Your task to perform on an android device: open wifi settings Image 0: 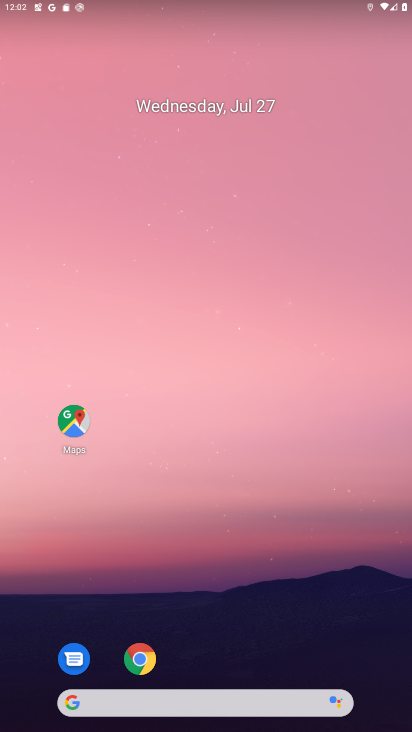
Step 0: drag from (238, 621) to (349, 24)
Your task to perform on an android device: open wifi settings Image 1: 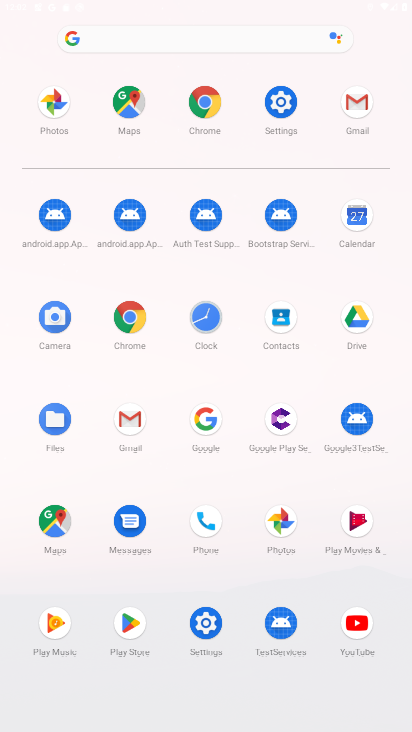
Step 1: click (285, 103)
Your task to perform on an android device: open wifi settings Image 2: 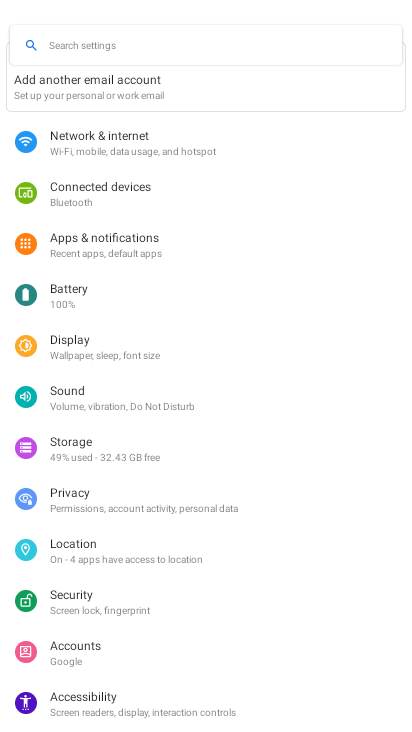
Step 2: click (121, 144)
Your task to perform on an android device: open wifi settings Image 3: 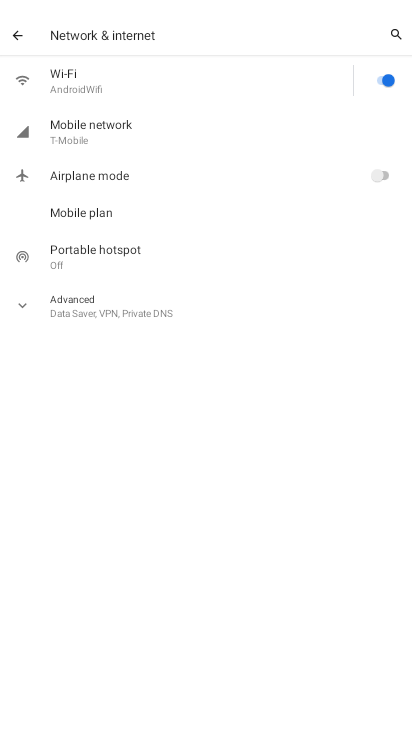
Step 3: click (99, 88)
Your task to perform on an android device: open wifi settings Image 4: 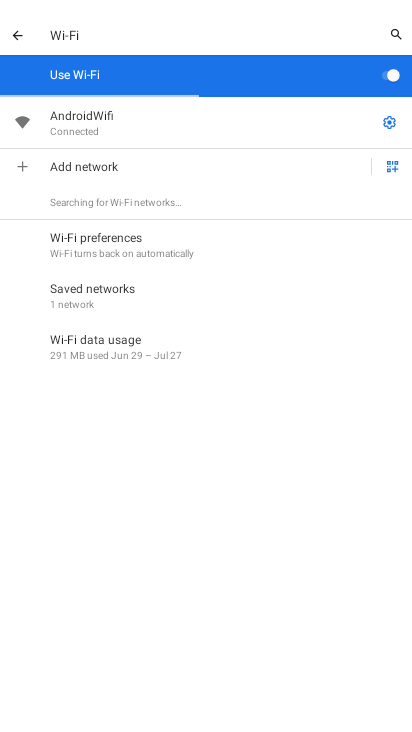
Step 4: task complete